Your task to perform on an android device: Search for Italian restaurants on Maps Image 0: 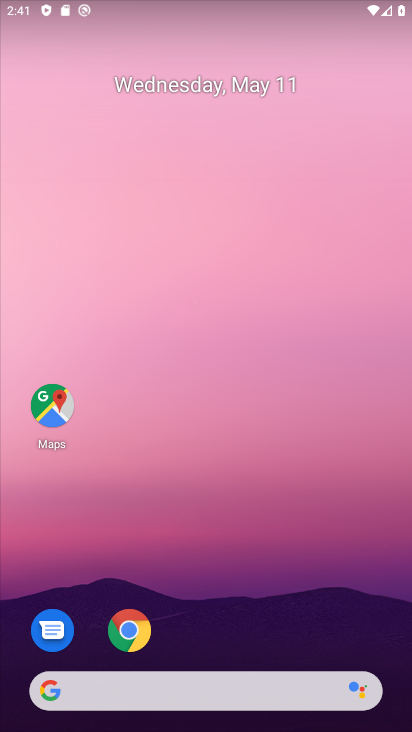
Step 0: click (53, 410)
Your task to perform on an android device: Search for Italian restaurants on Maps Image 1: 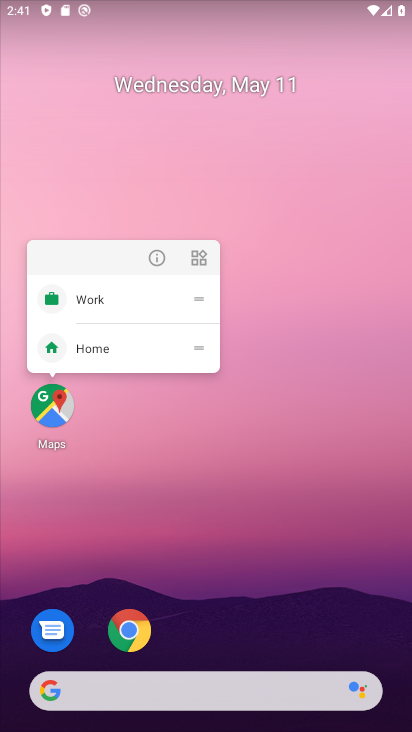
Step 1: click (119, 418)
Your task to perform on an android device: Search for Italian restaurants on Maps Image 2: 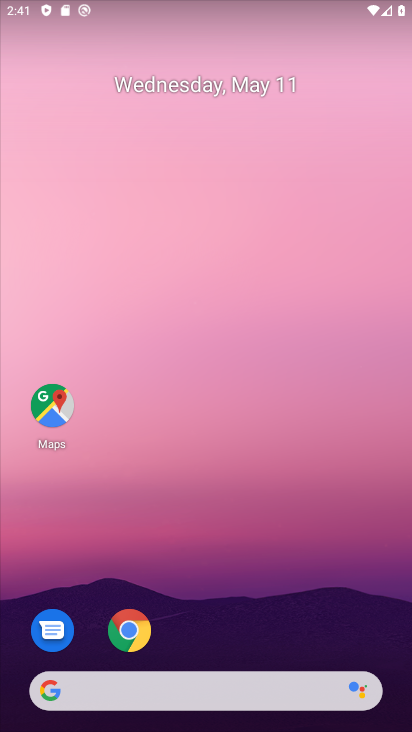
Step 2: click (53, 409)
Your task to perform on an android device: Search for Italian restaurants on Maps Image 3: 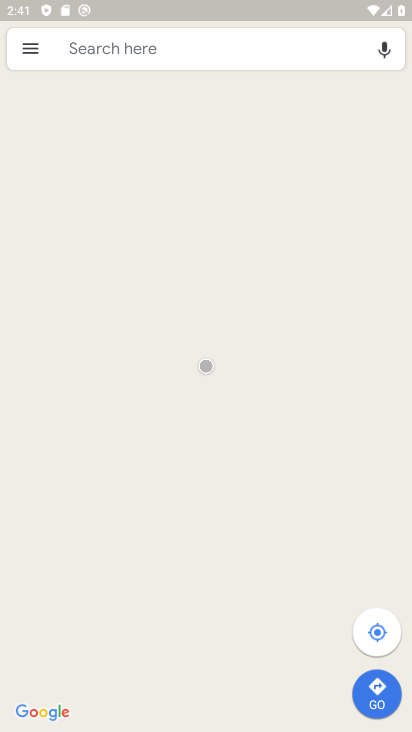
Step 3: click (104, 54)
Your task to perform on an android device: Search for Italian restaurants on Maps Image 4: 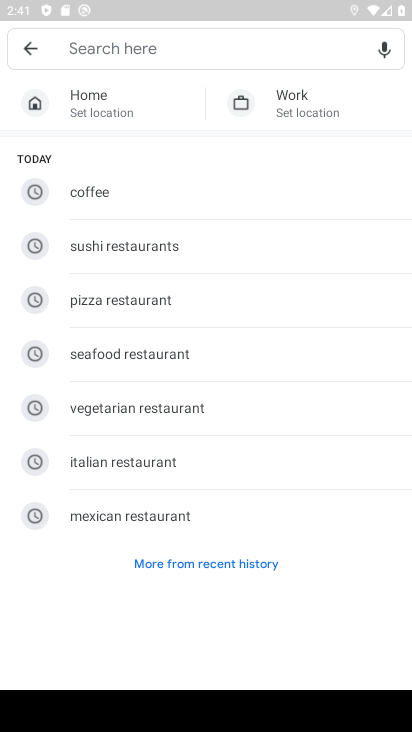
Step 4: type "italian restaurant"
Your task to perform on an android device: Search for Italian restaurants on Maps Image 5: 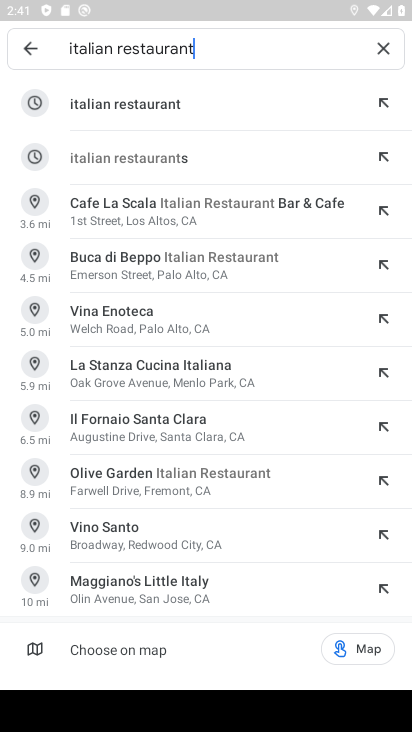
Step 5: click (140, 106)
Your task to perform on an android device: Search for Italian restaurants on Maps Image 6: 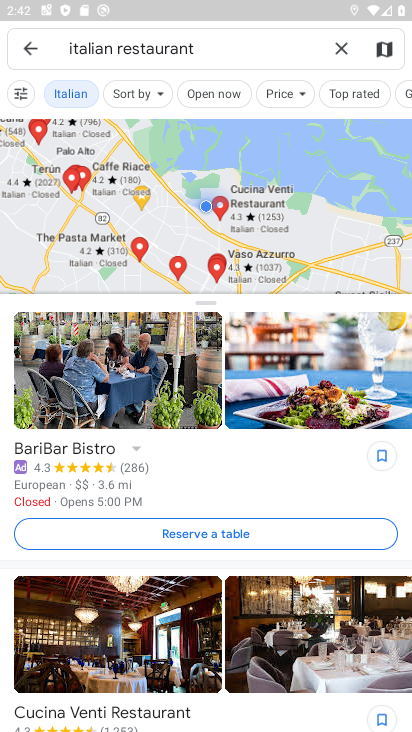
Step 6: task complete